Your task to perform on an android device: toggle show notifications on the lock screen Image 0: 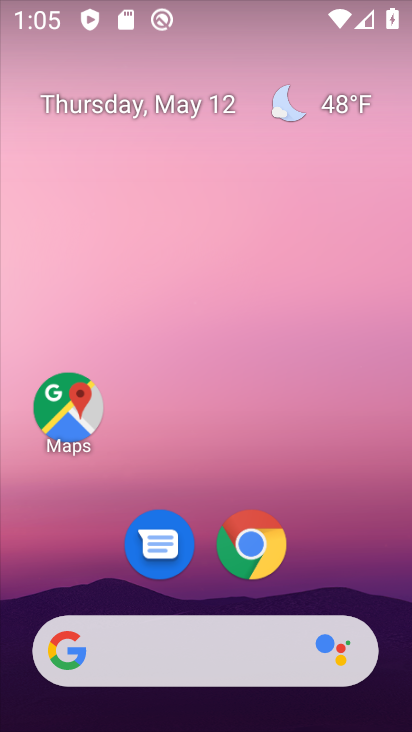
Step 0: drag from (303, 512) to (215, 16)
Your task to perform on an android device: toggle show notifications on the lock screen Image 1: 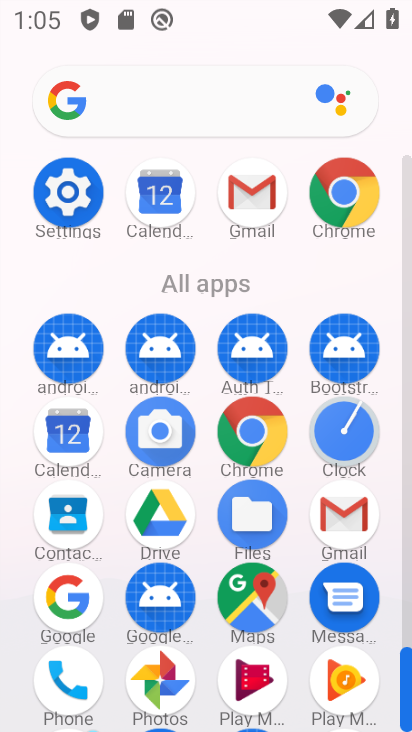
Step 1: drag from (16, 595) to (15, 267)
Your task to perform on an android device: toggle show notifications on the lock screen Image 2: 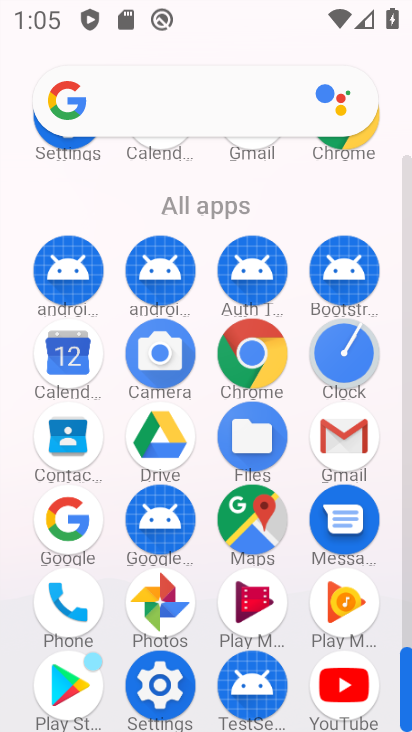
Step 2: drag from (4, 661) to (24, 333)
Your task to perform on an android device: toggle show notifications on the lock screen Image 3: 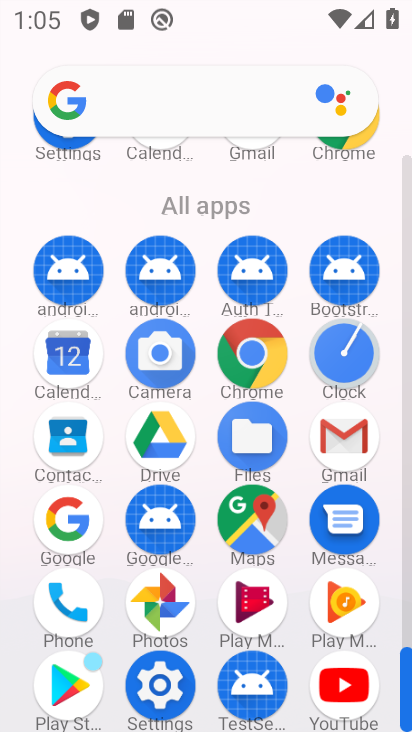
Step 3: click (154, 684)
Your task to perform on an android device: toggle show notifications on the lock screen Image 4: 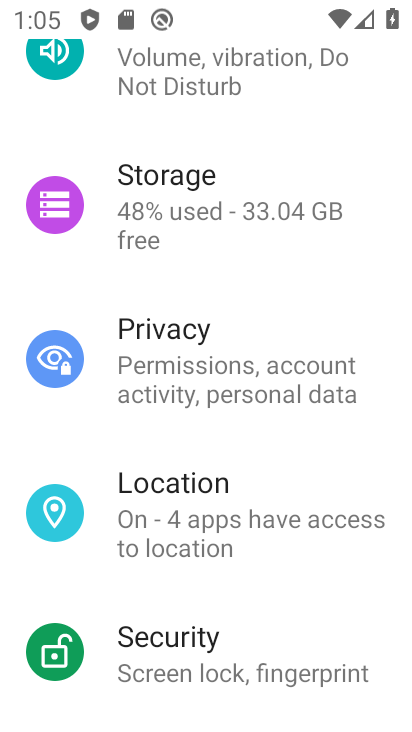
Step 4: drag from (280, 386) to (294, 155)
Your task to perform on an android device: toggle show notifications on the lock screen Image 5: 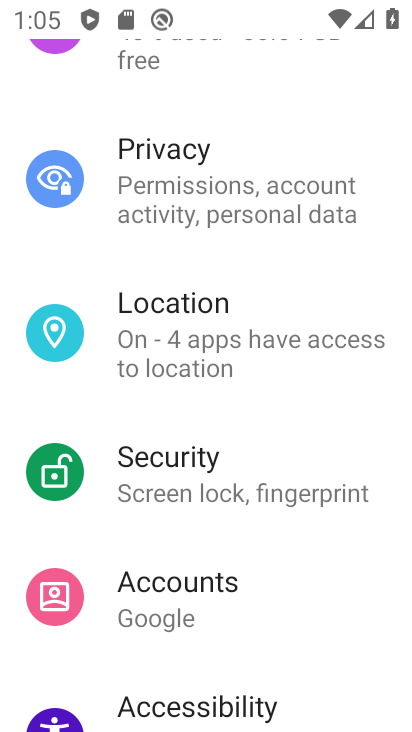
Step 5: drag from (302, 505) to (300, 243)
Your task to perform on an android device: toggle show notifications on the lock screen Image 6: 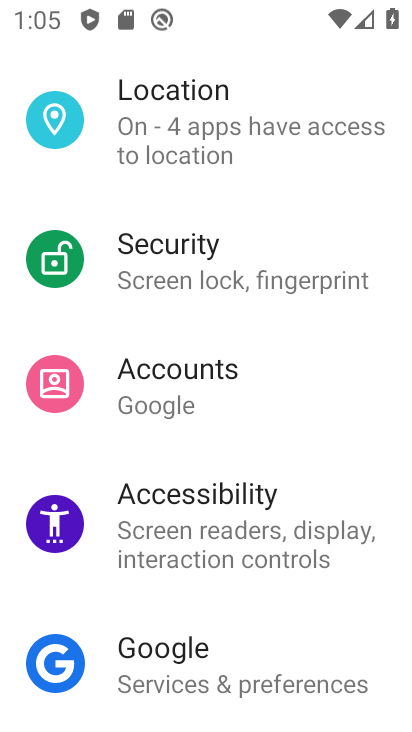
Step 6: drag from (300, 174) to (274, 627)
Your task to perform on an android device: toggle show notifications on the lock screen Image 7: 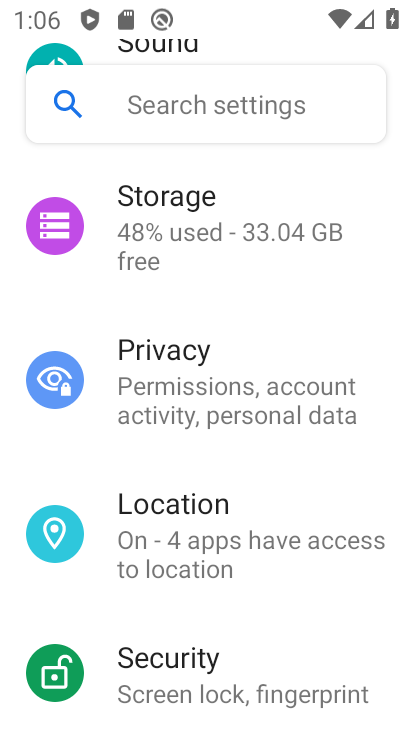
Step 7: drag from (298, 203) to (298, 603)
Your task to perform on an android device: toggle show notifications on the lock screen Image 8: 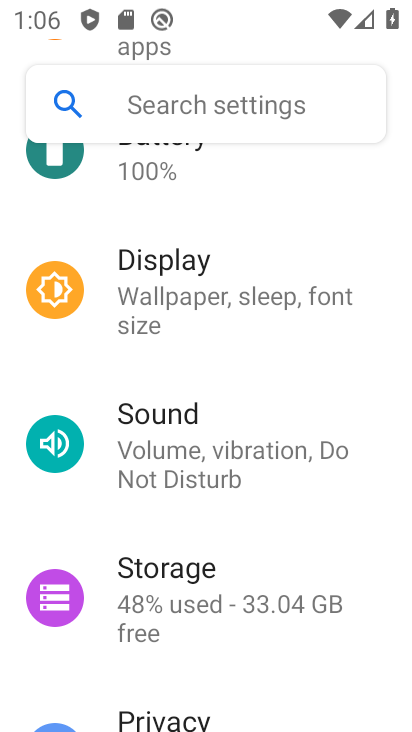
Step 8: drag from (328, 284) to (313, 602)
Your task to perform on an android device: toggle show notifications on the lock screen Image 9: 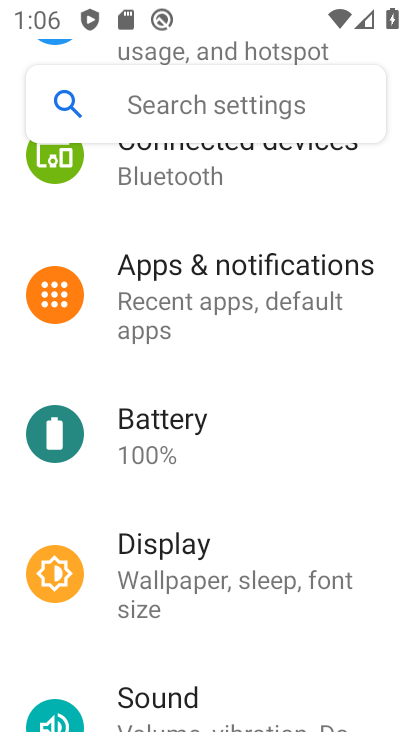
Step 9: click (245, 289)
Your task to perform on an android device: toggle show notifications on the lock screen Image 10: 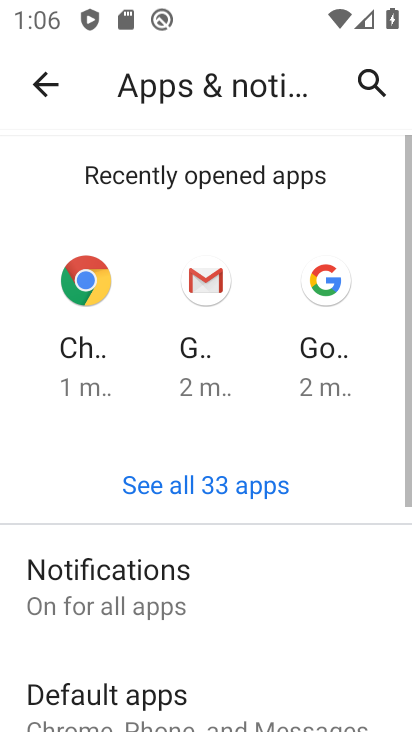
Step 10: drag from (233, 552) to (262, 203)
Your task to perform on an android device: toggle show notifications on the lock screen Image 11: 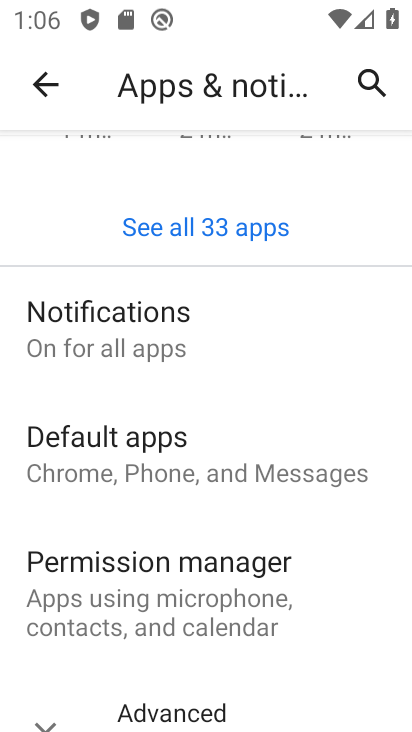
Step 11: drag from (250, 496) to (273, 203)
Your task to perform on an android device: toggle show notifications on the lock screen Image 12: 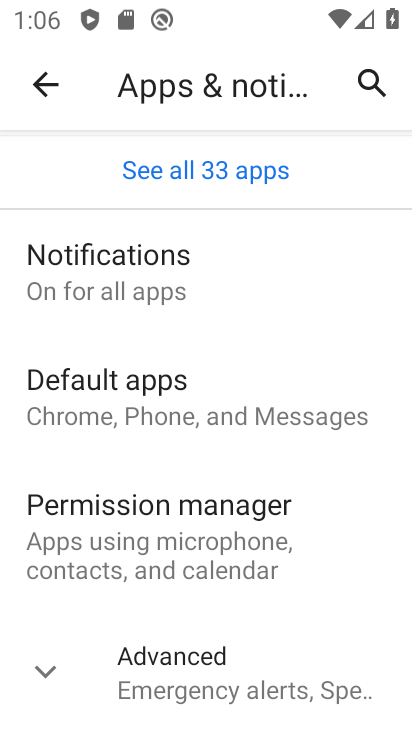
Step 12: click (42, 667)
Your task to perform on an android device: toggle show notifications on the lock screen Image 13: 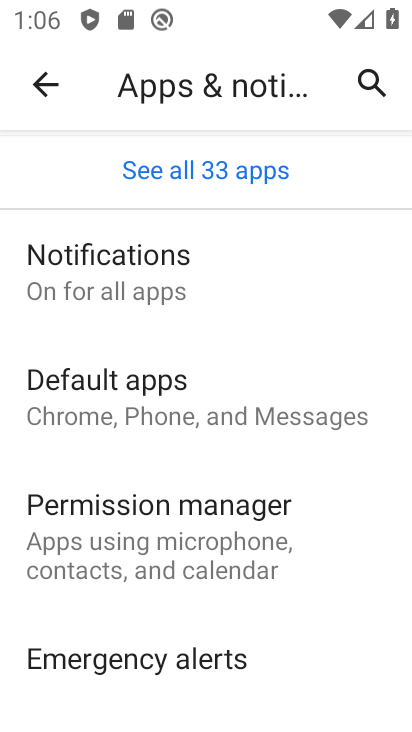
Step 13: click (223, 289)
Your task to perform on an android device: toggle show notifications on the lock screen Image 14: 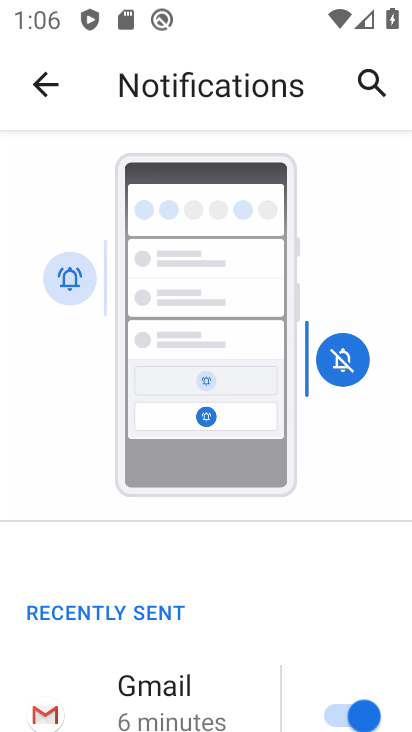
Step 14: drag from (218, 607) to (237, 165)
Your task to perform on an android device: toggle show notifications on the lock screen Image 15: 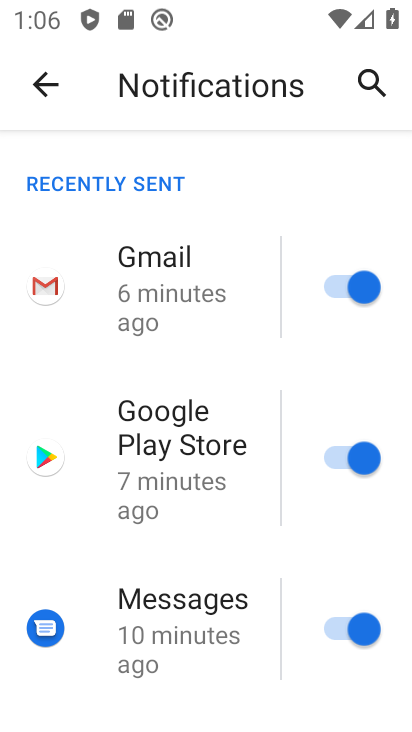
Step 15: drag from (215, 613) to (216, 178)
Your task to perform on an android device: toggle show notifications on the lock screen Image 16: 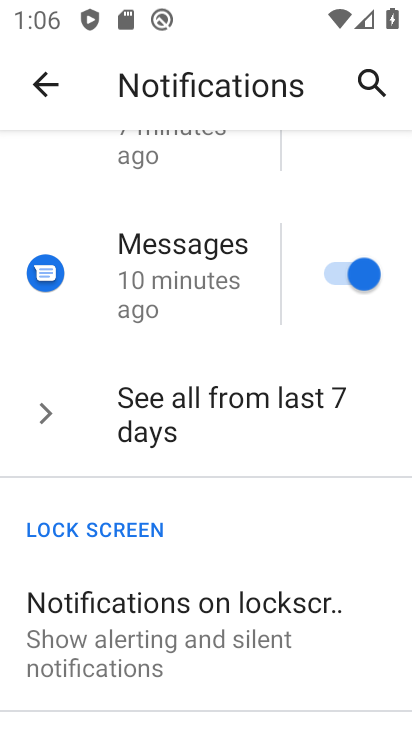
Step 16: click (155, 619)
Your task to perform on an android device: toggle show notifications on the lock screen Image 17: 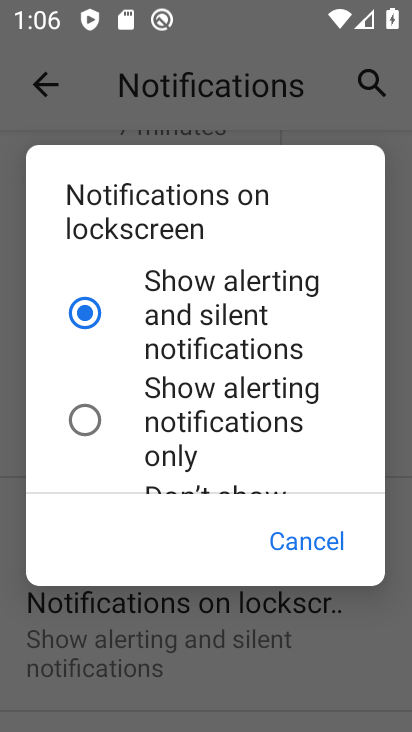
Step 17: click (158, 406)
Your task to perform on an android device: toggle show notifications on the lock screen Image 18: 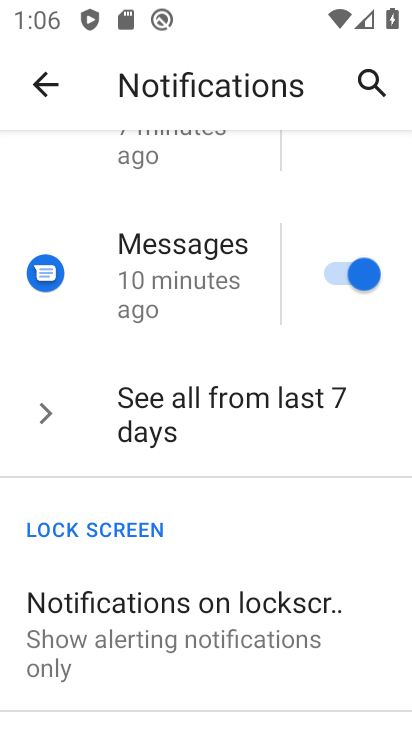
Step 18: task complete